Your task to perform on an android device: What is the recent news? Image 0: 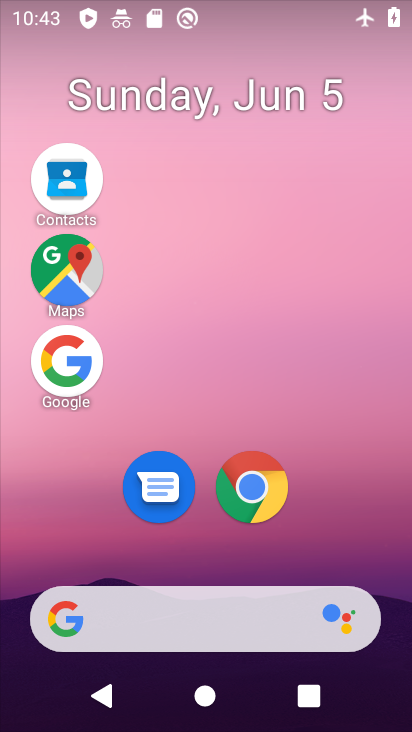
Step 0: drag from (152, 598) to (211, 57)
Your task to perform on an android device: What is the recent news? Image 1: 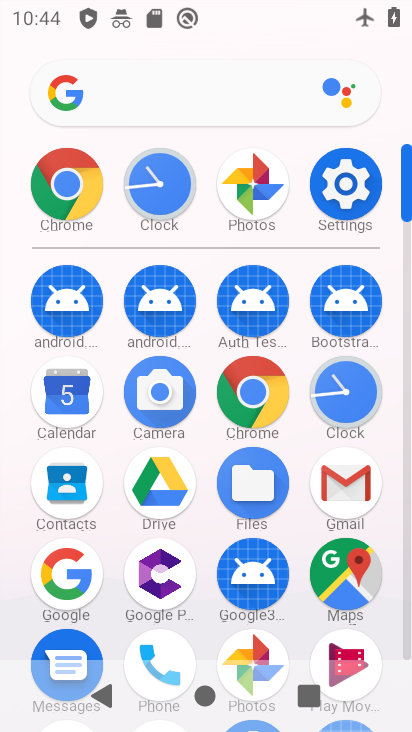
Step 1: click (76, 582)
Your task to perform on an android device: What is the recent news? Image 2: 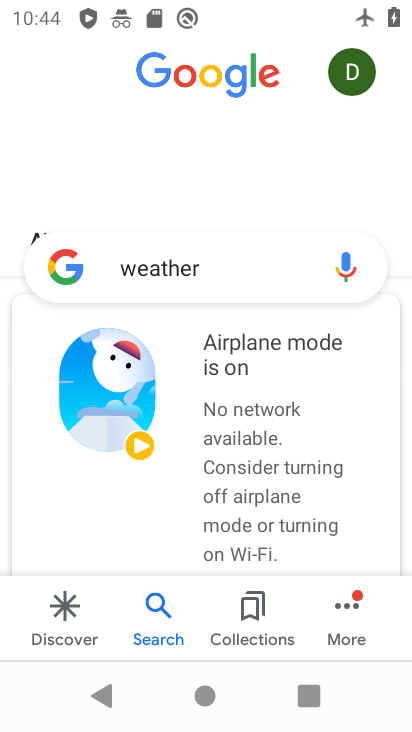
Step 2: click (222, 280)
Your task to perform on an android device: What is the recent news? Image 3: 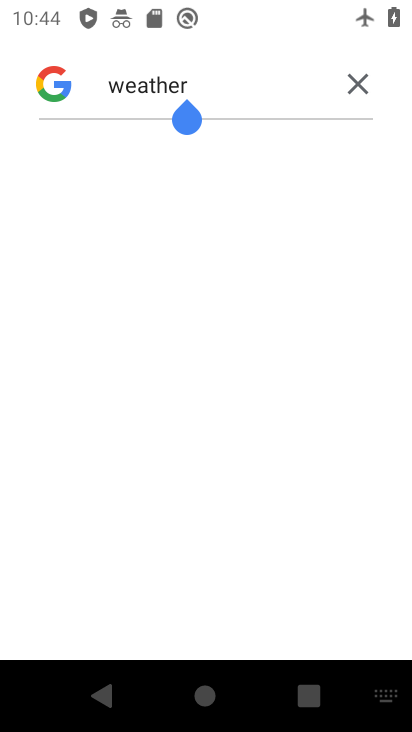
Step 3: click (367, 94)
Your task to perform on an android device: What is the recent news? Image 4: 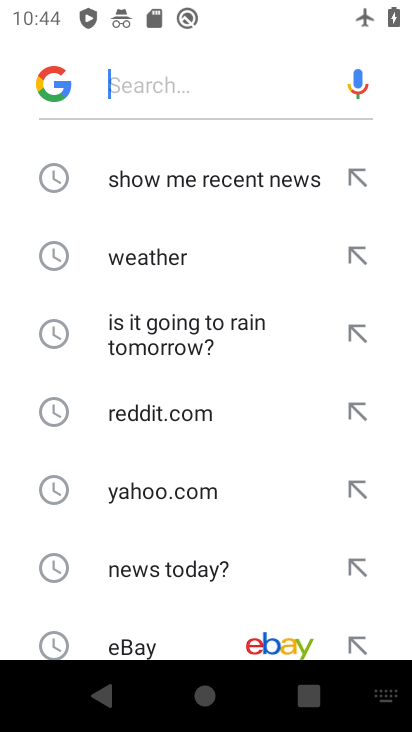
Step 4: type "recent"
Your task to perform on an android device: What is the recent news? Image 5: 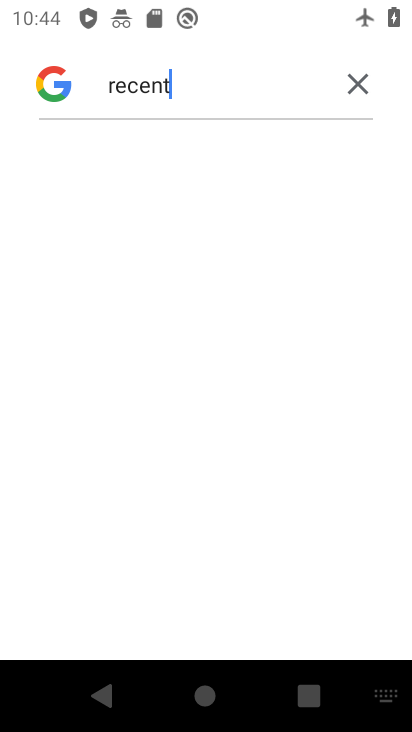
Step 5: task complete